Your task to perform on an android device: Go to battery settings Image 0: 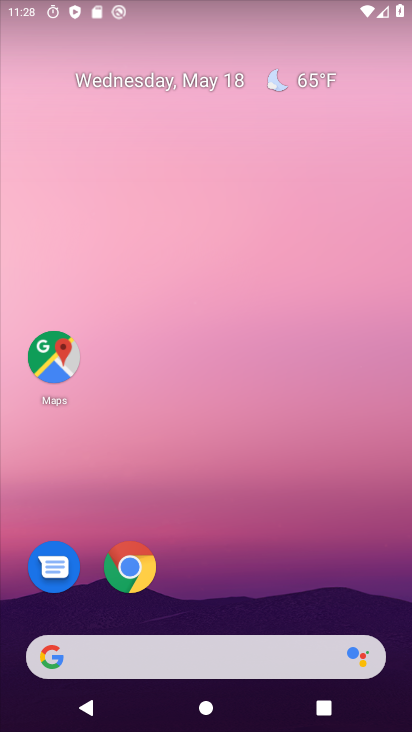
Step 0: drag from (227, 578) to (223, 96)
Your task to perform on an android device: Go to battery settings Image 1: 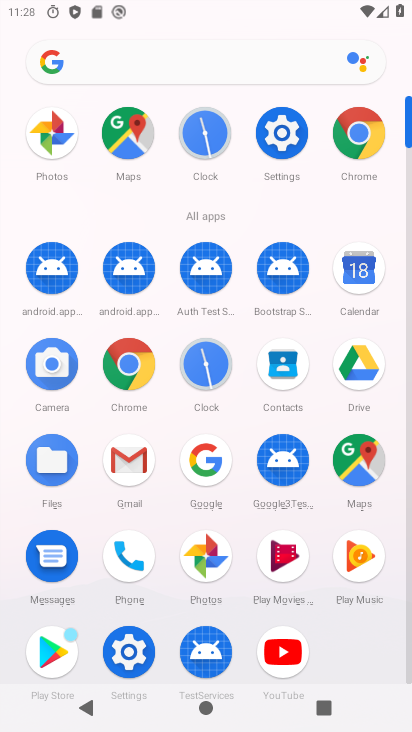
Step 1: click (288, 136)
Your task to perform on an android device: Go to battery settings Image 2: 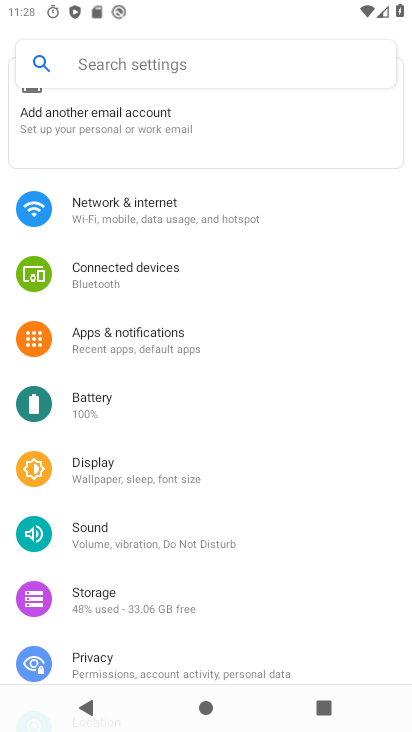
Step 2: drag from (147, 619) to (164, 348)
Your task to perform on an android device: Go to battery settings Image 3: 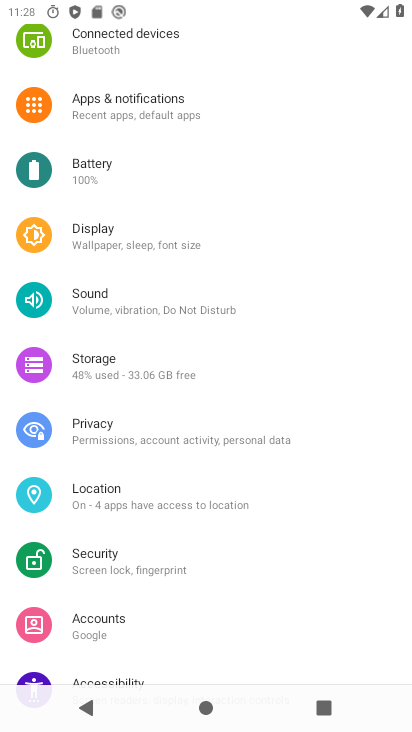
Step 3: click (109, 170)
Your task to perform on an android device: Go to battery settings Image 4: 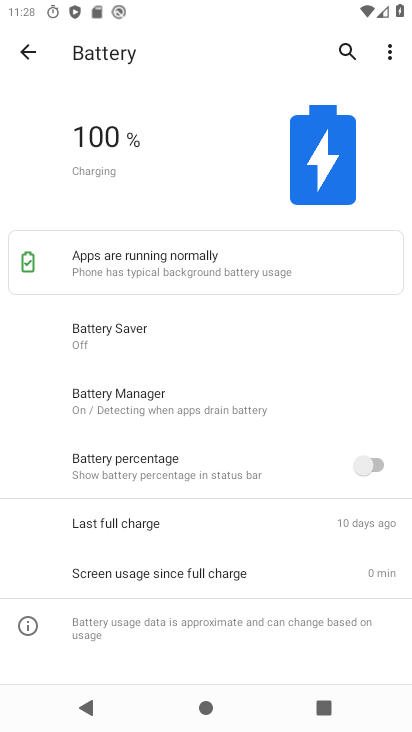
Step 4: task complete